Your task to perform on an android device: Go to ESPN.com Image 0: 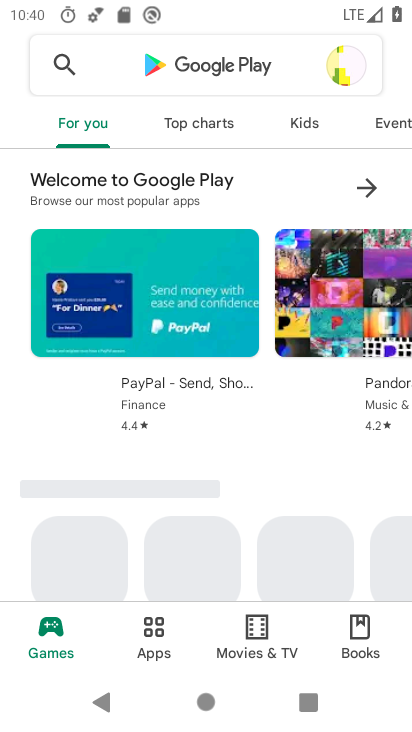
Step 0: press home button
Your task to perform on an android device: Go to ESPN.com Image 1: 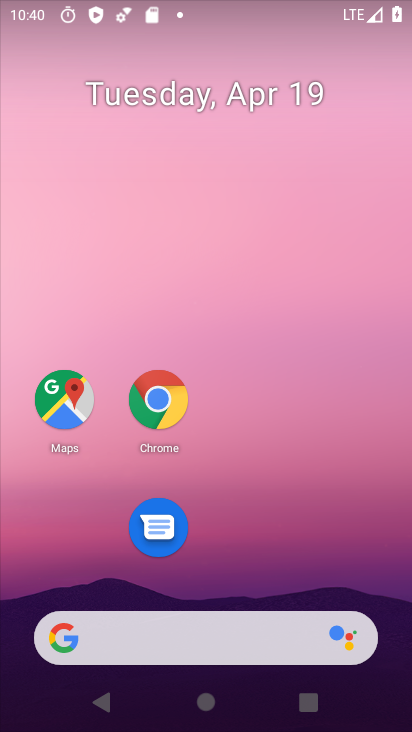
Step 1: drag from (280, 604) to (293, 162)
Your task to perform on an android device: Go to ESPN.com Image 2: 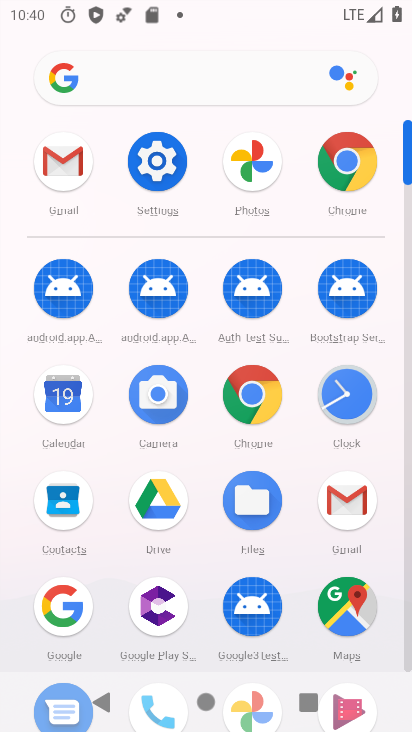
Step 2: click (347, 178)
Your task to perform on an android device: Go to ESPN.com Image 3: 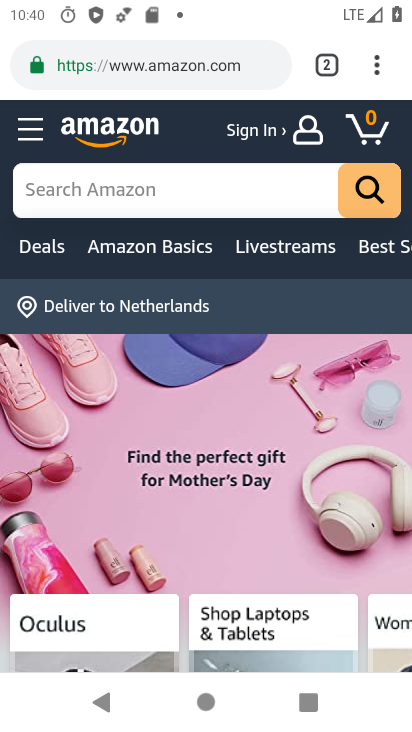
Step 3: click (186, 69)
Your task to perform on an android device: Go to ESPN.com Image 4: 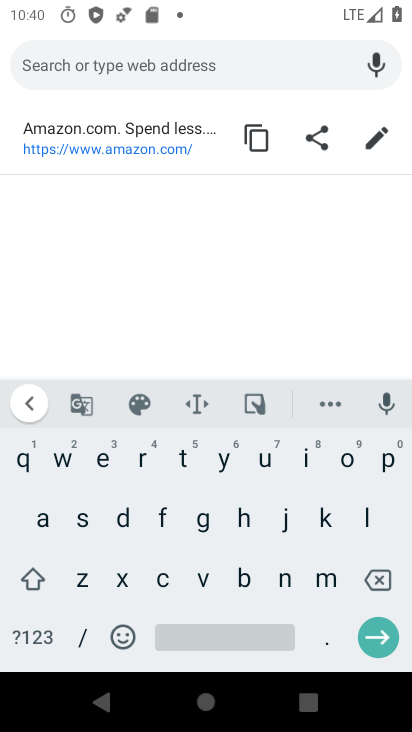
Step 4: click (101, 467)
Your task to perform on an android device: Go to ESPN.com Image 5: 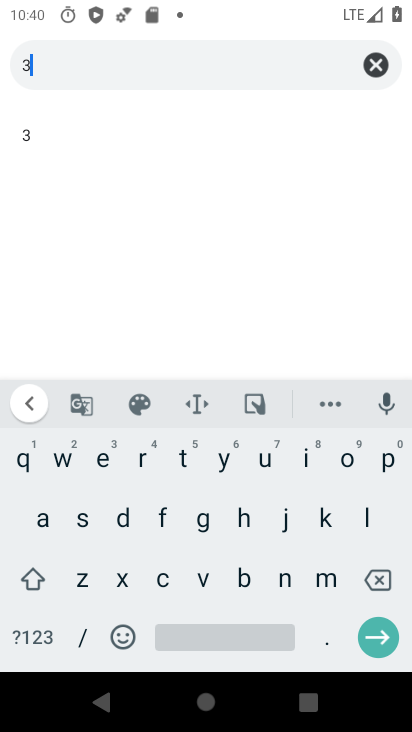
Step 5: click (378, 584)
Your task to perform on an android device: Go to ESPN.com Image 6: 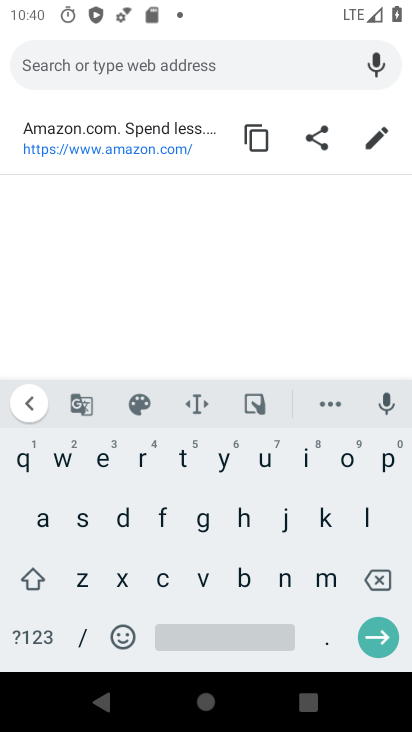
Step 6: click (97, 468)
Your task to perform on an android device: Go to ESPN.com Image 7: 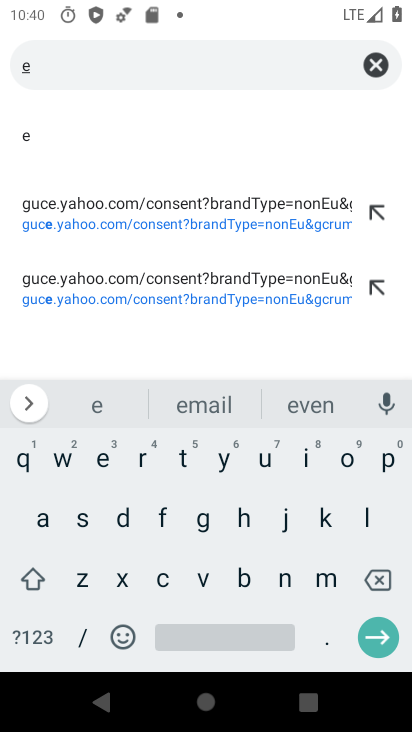
Step 7: click (77, 516)
Your task to perform on an android device: Go to ESPN.com Image 8: 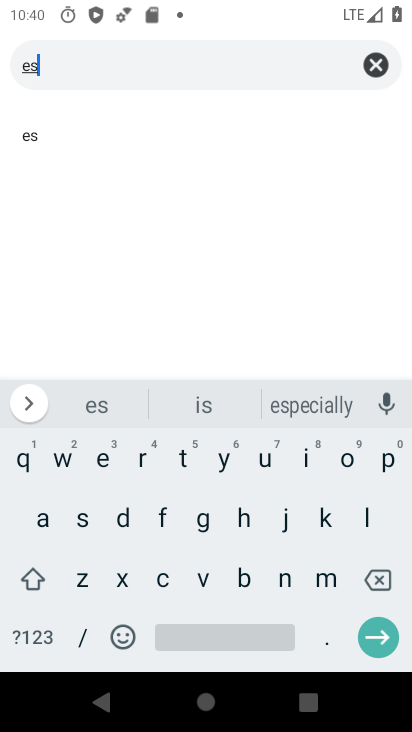
Step 8: click (385, 466)
Your task to perform on an android device: Go to ESPN.com Image 9: 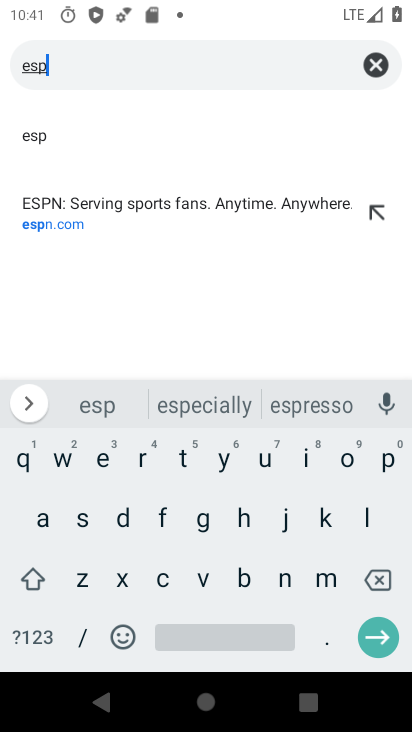
Step 9: click (284, 576)
Your task to perform on an android device: Go to ESPN.com Image 10: 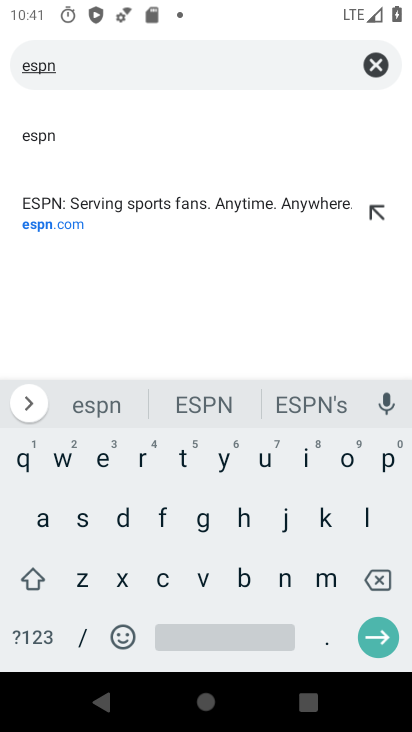
Step 10: click (330, 639)
Your task to perform on an android device: Go to ESPN.com Image 11: 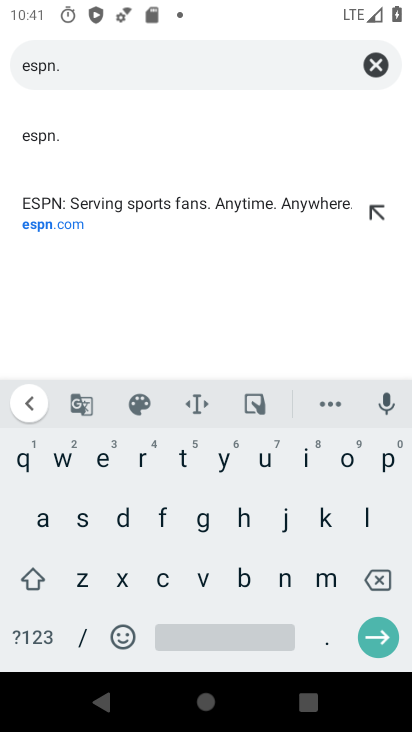
Step 11: click (159, 578)
Your task to perform on an android device: Go to ESPN.com Image 12: 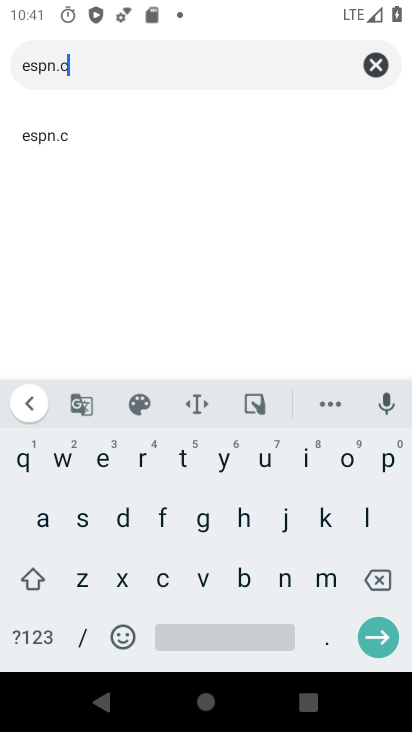
Step 12: click (349, 454)
Your task to perform on an android device: Go to ESPN.com Image 13: 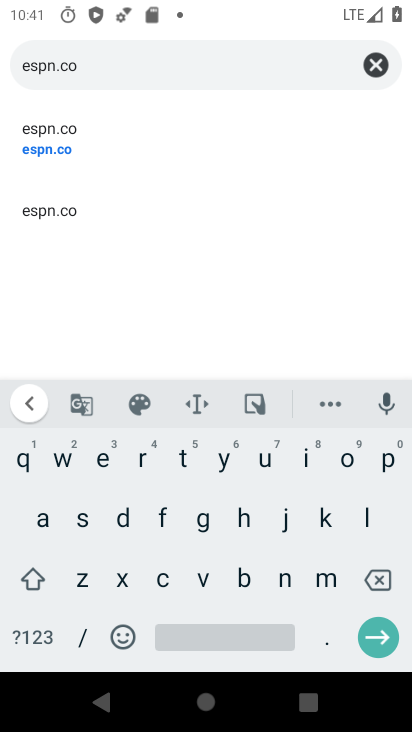
Step 13: click (324, 575)
Your task to perform on an android device: Go to ESPN.com Image 14: 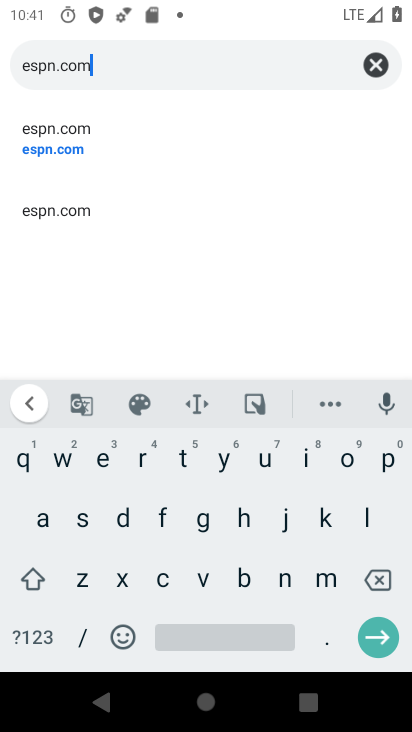
Step 14: click (99, 143)
Your task to perform on an android device: Go to ESPN.com Image 15: 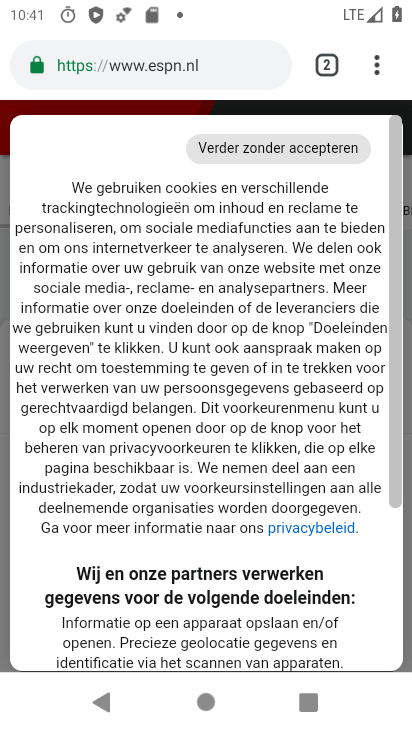
Step 15: task complete